Your task to perform on an android device: Do I have any events today? Image 0: 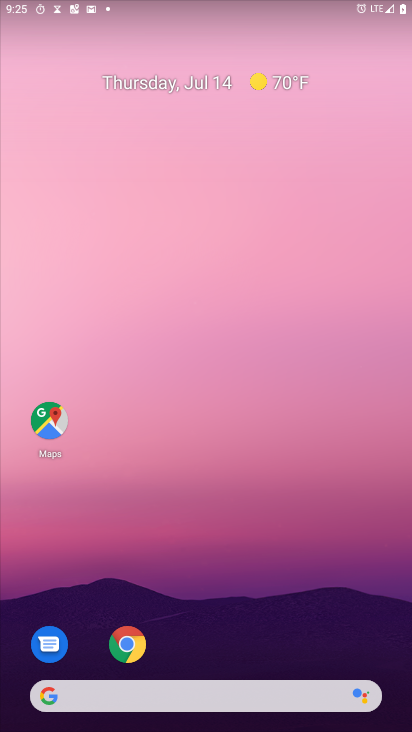
Step 0: drag from (128, 701) to (296, 95)
Your task to perform on an android device: Do I have any events today? Image 1: 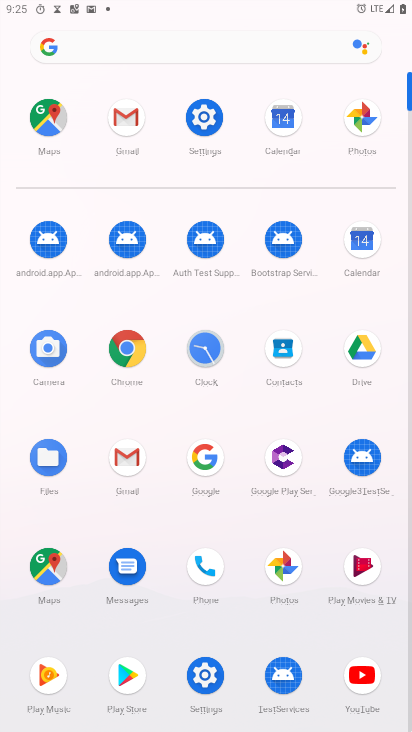
Step 1: click (284, 118)
Your task to perform on an android device: Do I have any events today? Image 2: 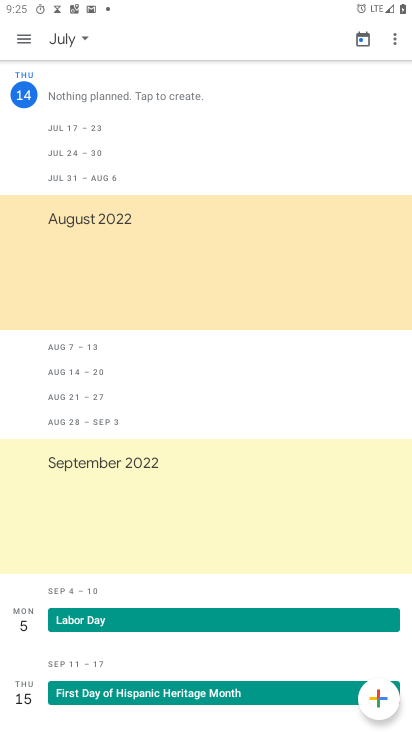
Step 2: click (21, 38)
Your task to perform on an android device: Do I have any events today? Image 3: 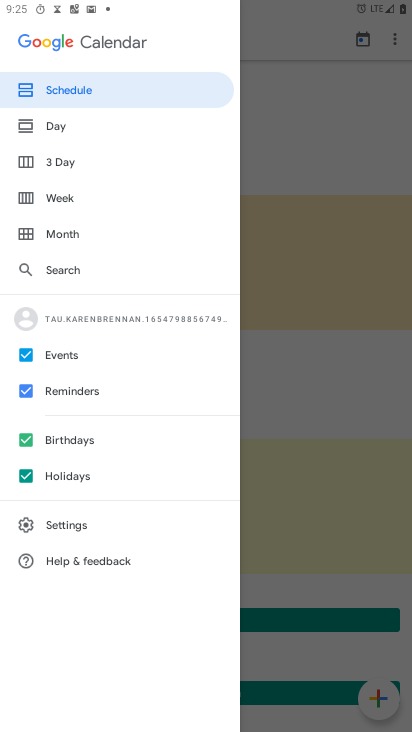
Step 3: click (54, 128)
Your task to perform on an android device: Do I have any events today? Image 4: 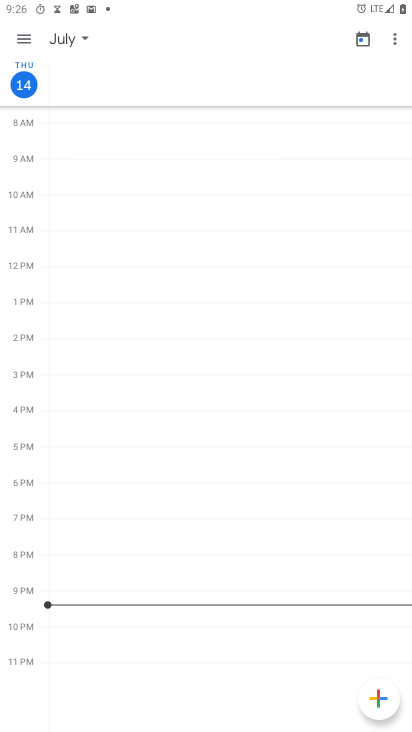
Step 4: click (27, 40)
Your task to perform on an android device: Do I have any events today? Image 5: 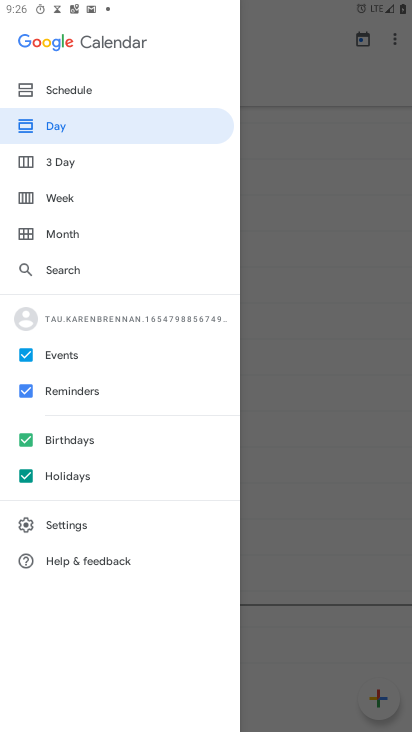
Step 5: click (65, 81)
Your task to perform on an android device: Do I have any events today? Image 6: 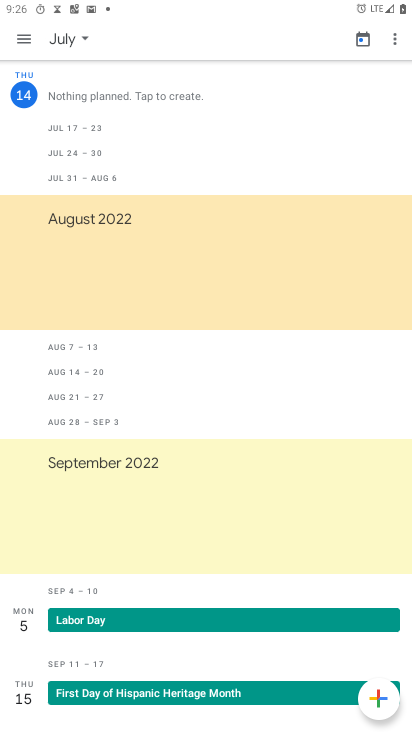
Step 6: task complete